Your task to perform on an android device: toggle data saver in the chrome app Image 0: 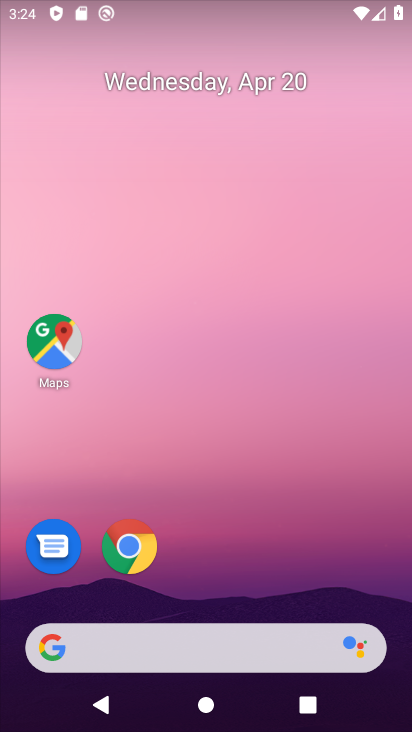
Step 0: drag from (154, 620) to (265, 145)
Your task to perform on an android device: toggle data saver in the chrome app Image 1: 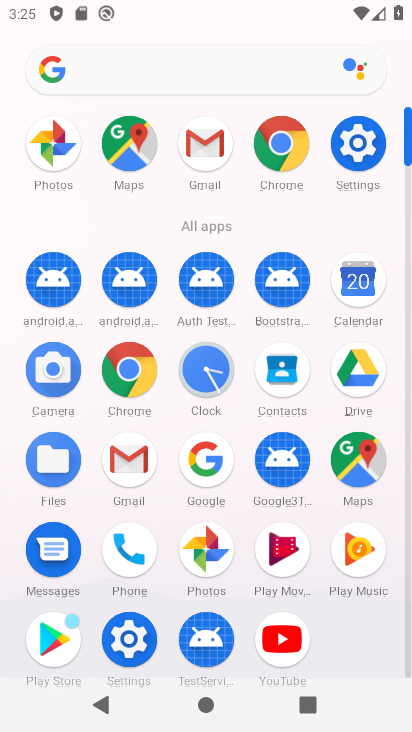
Step 1: click (129, 373)
Your task to perform on an android device: toggle data saver in the chrome app Image 2: 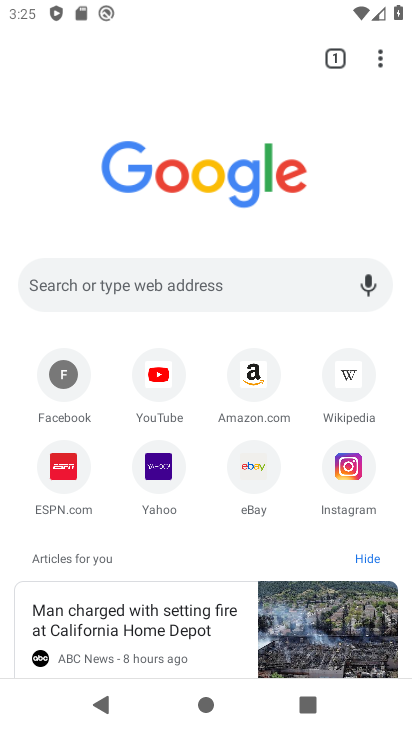
Step 2: drag from (381, 61) to (243, 489)
Your task to perform on an android device: toggle data saver in the chrome app Image 3: 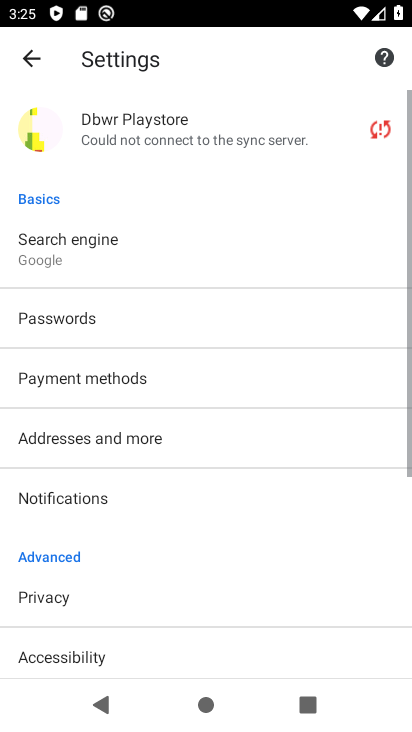
Step 3: drag from (170, 617) to (290, 267)
Your task to perform on an android device: toggle data saver in the chrome app Image 4: 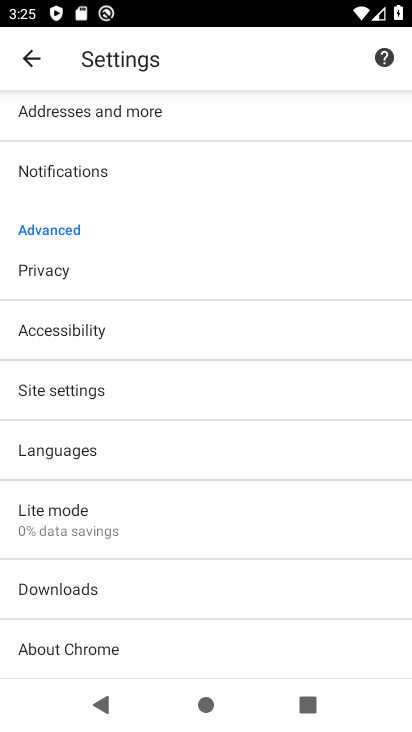
Step 4: click (86, 503)
Your task to perform on an android device: toggle data saver in the chrome app Image 5: 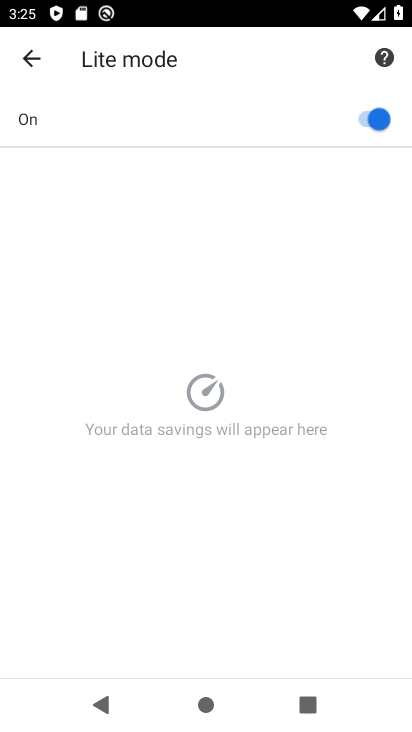
Step 5: click (365, 122)
Your task to perform on an android device: toggle data saver in the chrome app Image 6: 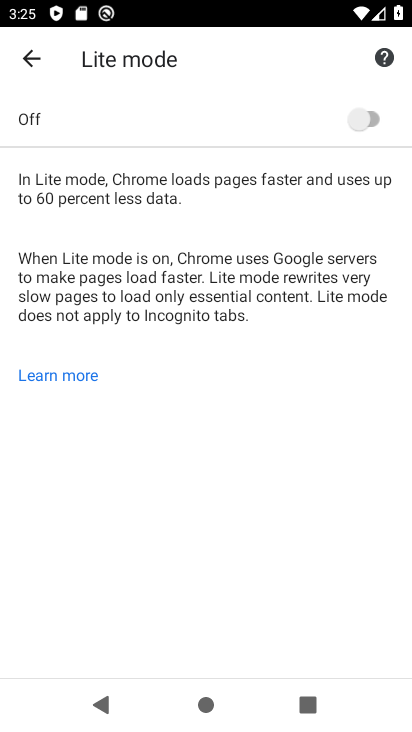
Step 6: task complete